Your task to perform on an android device: When is my next meeting? Image 0: 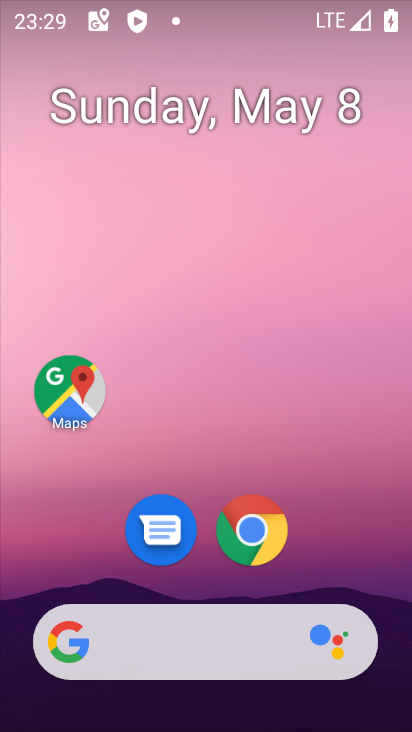
Step 0: drag from (363, 574) to (351, 199)
Your task to perform on an android device: When is my next meeting? Image 1: 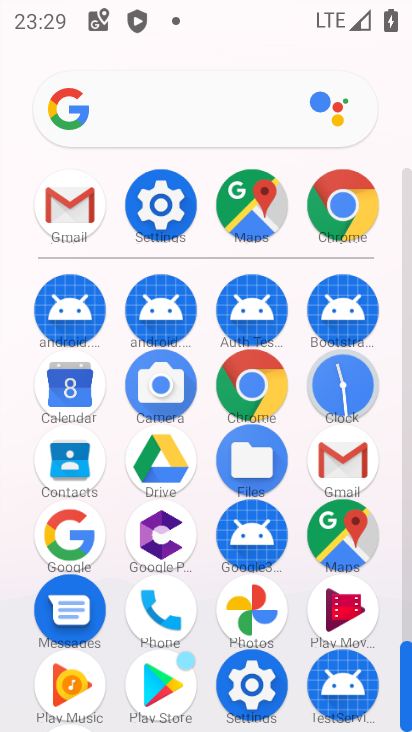
Step 1: click (53, 375)
Your task to perform on an android device: When is my next meeting? Image 2: 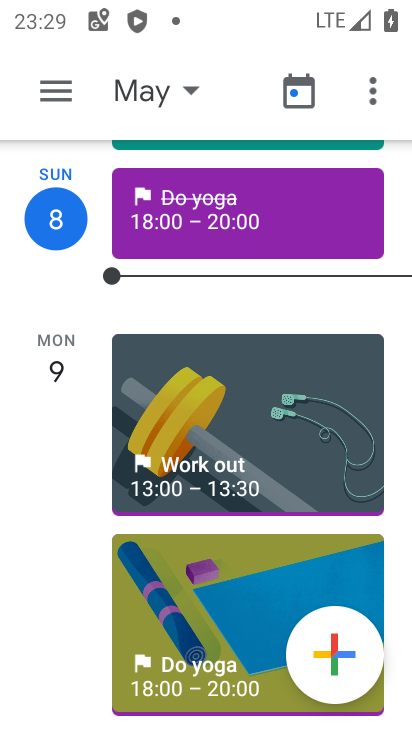
Step 2: drag from (71, 295) to (74, 565)
Your task to perform on an android device: When is my next meeting? Image 3: 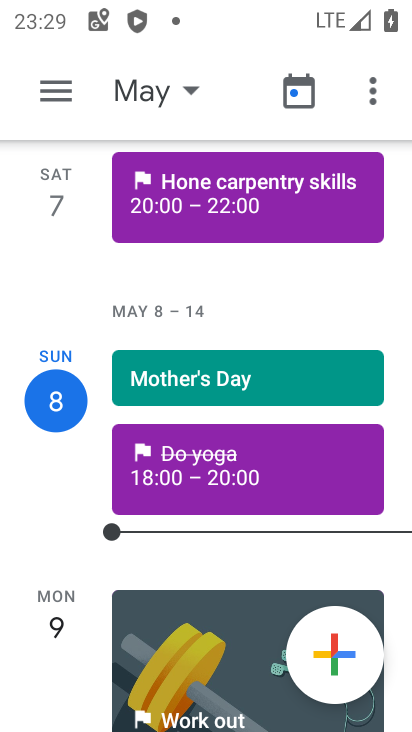
Step 3: click (148, 89)
Your task to perform on an android device: When is my next meeting? Image 4: 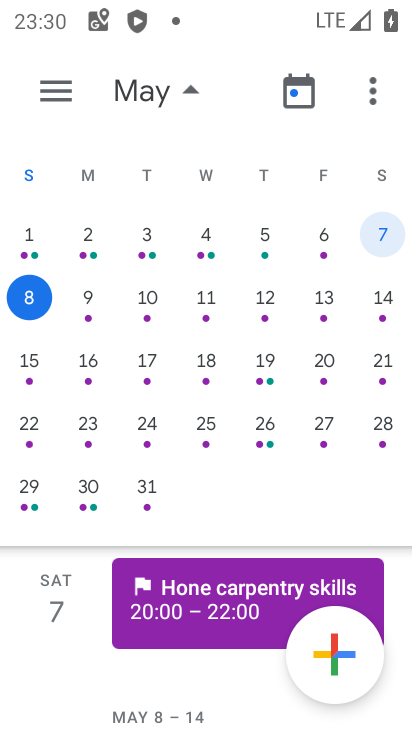
Step 4: drag from (85, 685) to (83, 423)
Your task to perform on an android device: When is my next meeting? Image 5: 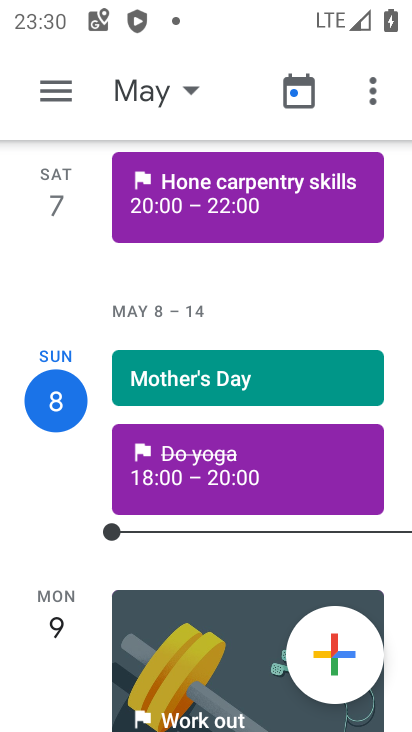
Step 5: drag from (37, 586) to (45, 280)
Your task to perform on an android device: When is my next meeting? Image 6: 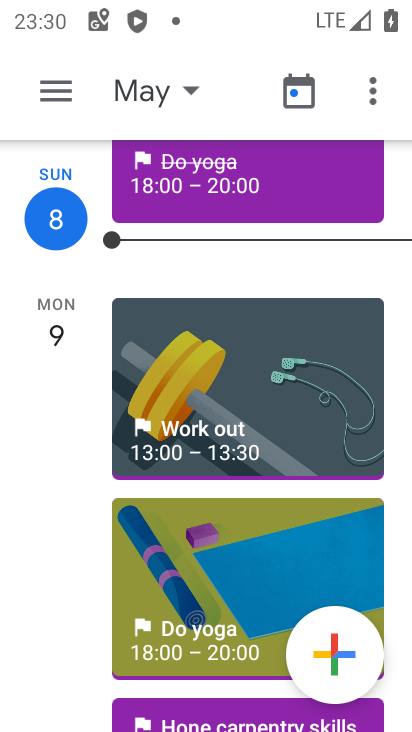
Step 6: drag from (51, 632) to (51, 331)
Your task to perform on an android device: When is my next meeting? Image 7: 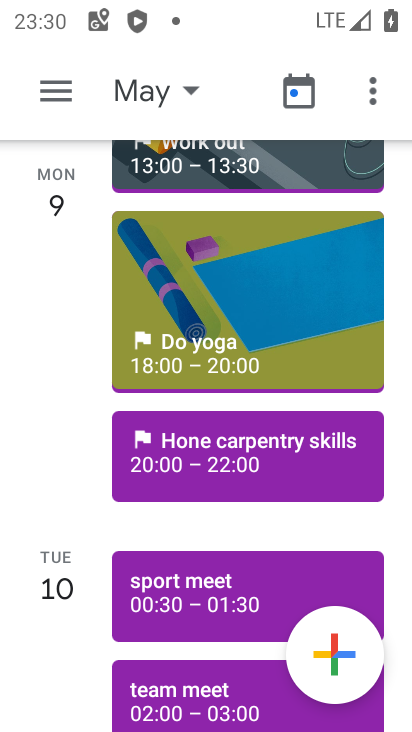
Step 7: click (172, 692)
Your task to perform on an android device: When is my next meeting? Image 8: 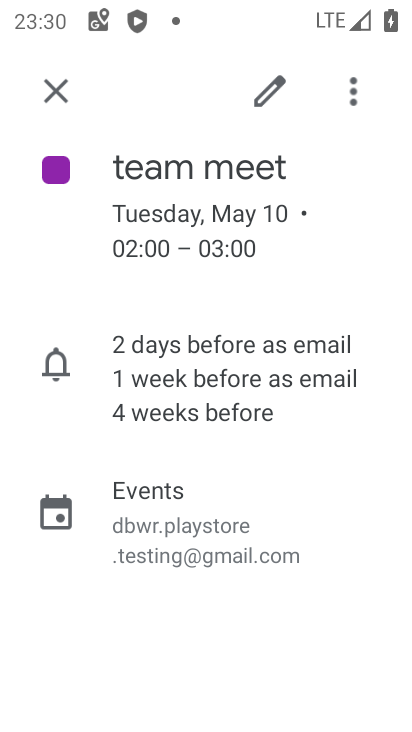
Step 8: task complete